Your task to perform on an android device: show emergency info Image 0: 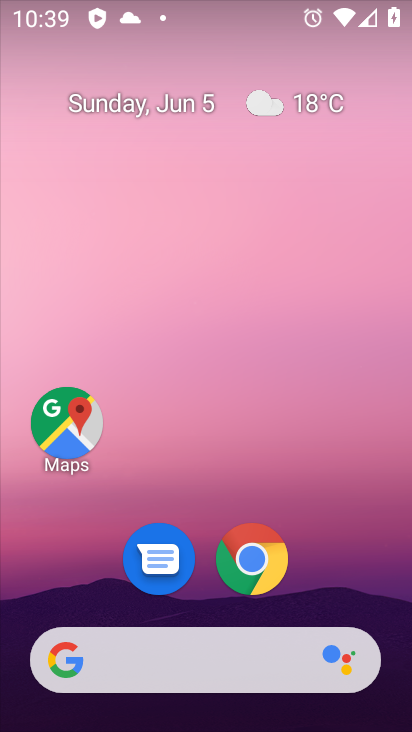
Step 0: drag from (385, 657) to (350, 162)
Your task to perform on an android device: show emergency info Image 1: 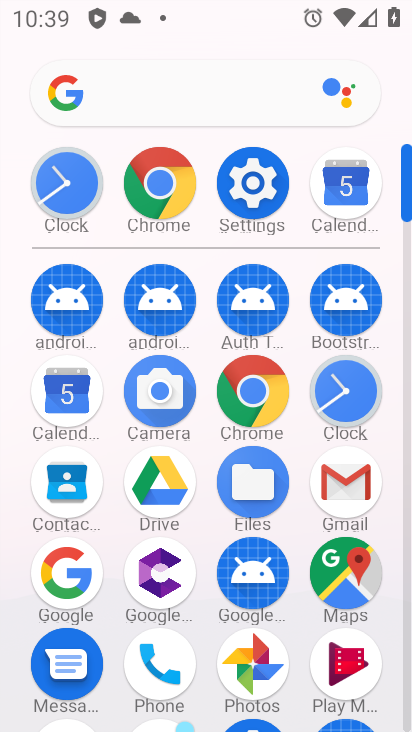
Step 1: click (256, 184)
Your task to perform on an android device: show emergency info Image 2: 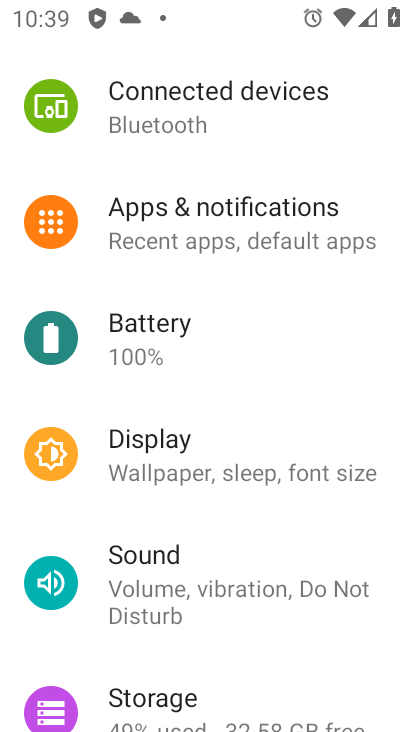
Step 2: click (304, 244)
Your task to perform on an android device: show emergency info Image 3: 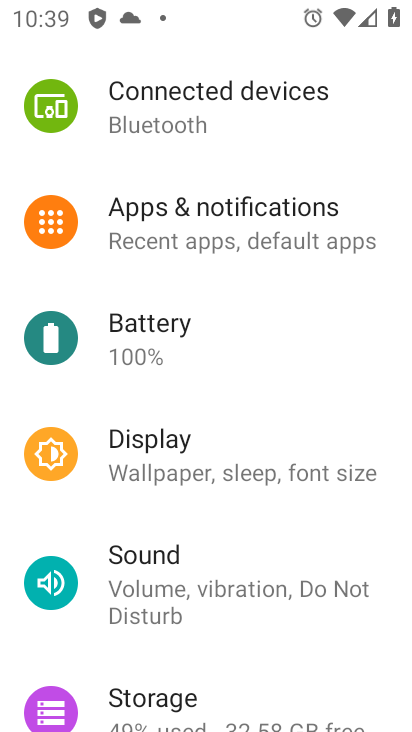
Step 3: drag from (298, 689) to (273, 204)
Your task to perform on an android device: show emergency info Image 4: 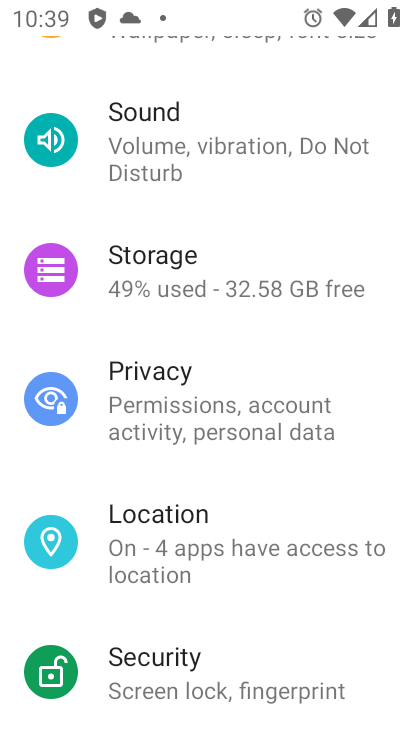
Step 4: drag from (284, 622) to (259, 275)
Your task to perform on an android device: show emergency info Image 5: 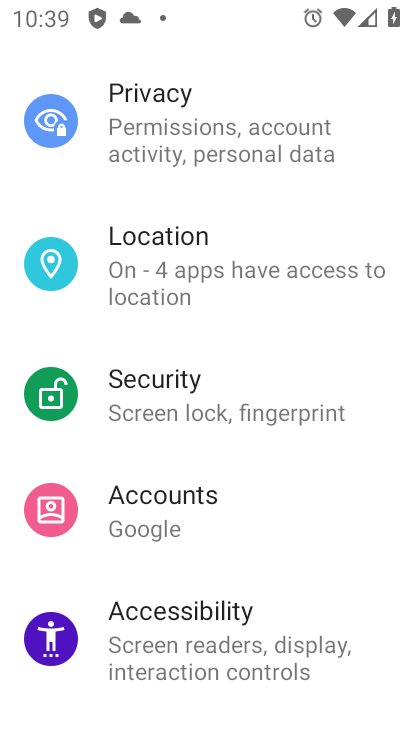
Step 5: drag from (295, 696) to (264, 210)
Your task to perform on an android device: show emergency info Image 6: 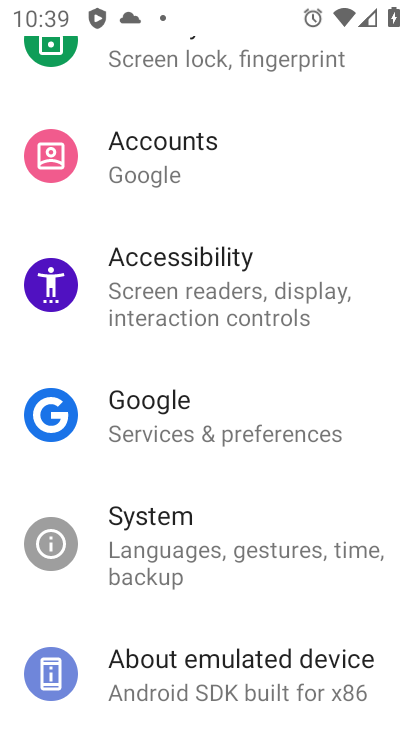
Step 6: drag from (353, 513) to (350, 284)
Your task to perform on an android device: show emergency info Image 7: 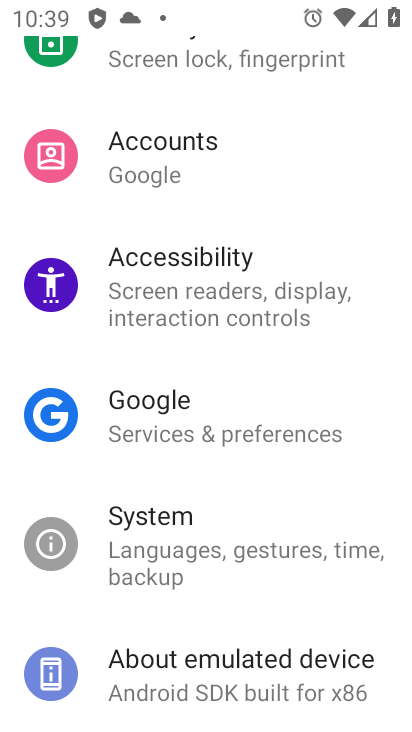
Step 7: click (199, 677)
Your task to perform on an android device: show emergency info Image 8: 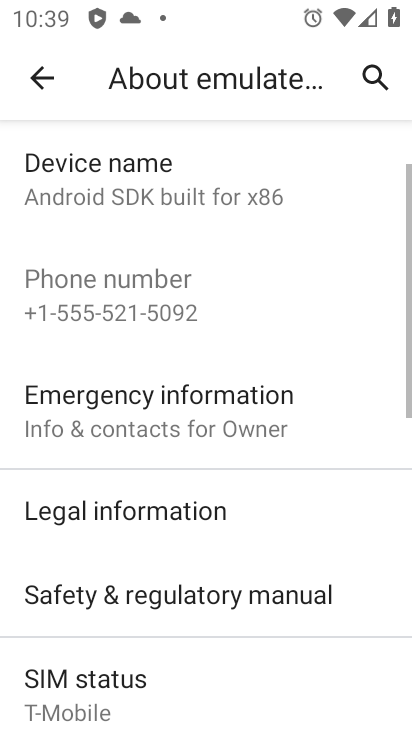
Step 8: task complete